Your task to perform on an android device: Open calendar and show me the third week of next month Image 0: 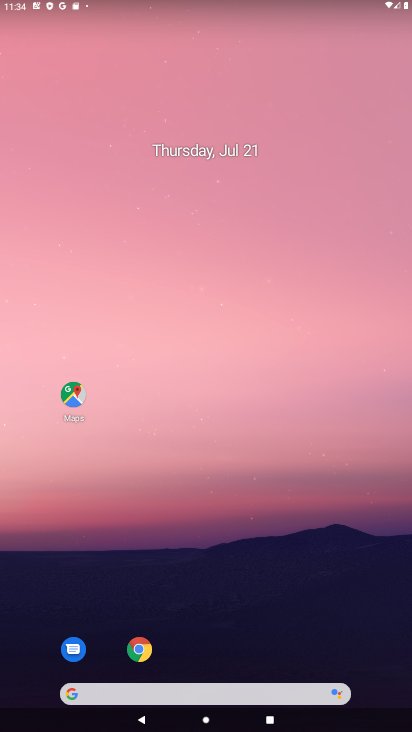
Step 0: drag from (206, 676) to (180, 219)
Your task to perform on an android device: Open calendar and show me the third week of next month Image 1: 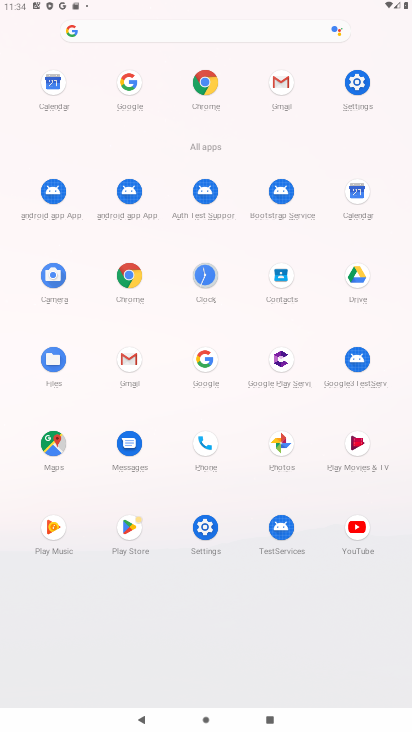
Step 1: click (363, 186)
Your task to perform on an android device: Open calendar and show me the third week of next month Image 2: 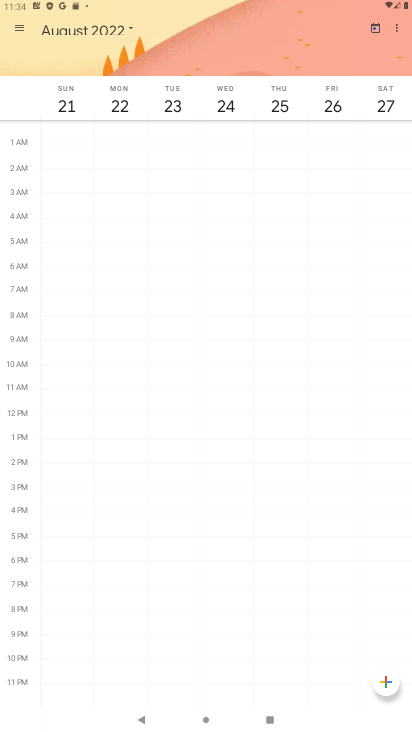
Step 2: task complete